Your task to perform on an android device: change timer sound Image 0: 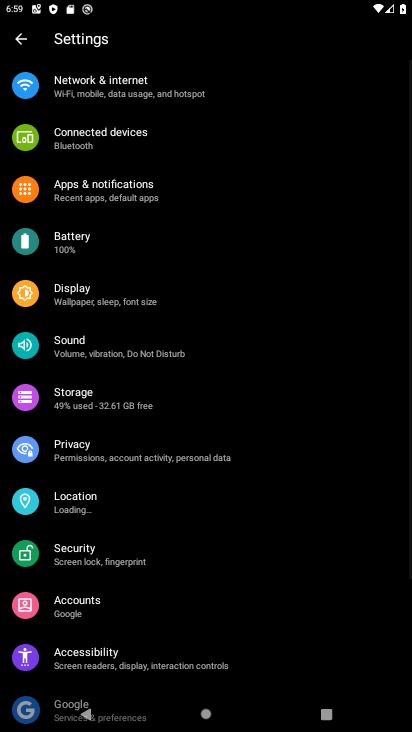
Step 0: press home button
Your task to perform on an android device: change timer sound Image 1: 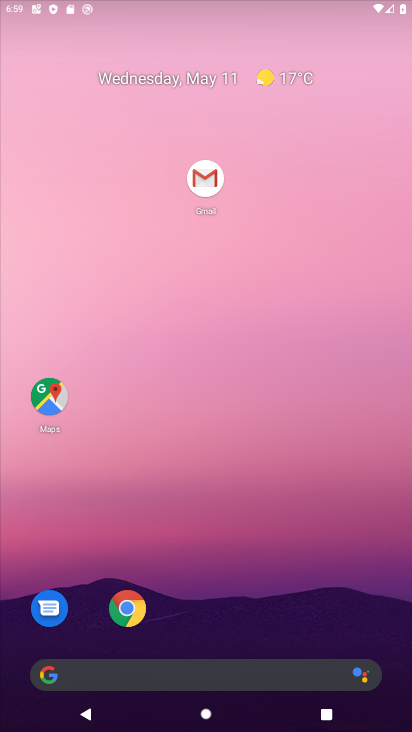
Step 1: drag from (312, 631) to (258, 56)
Your task to perform on an android device: change timer sound Image 2: 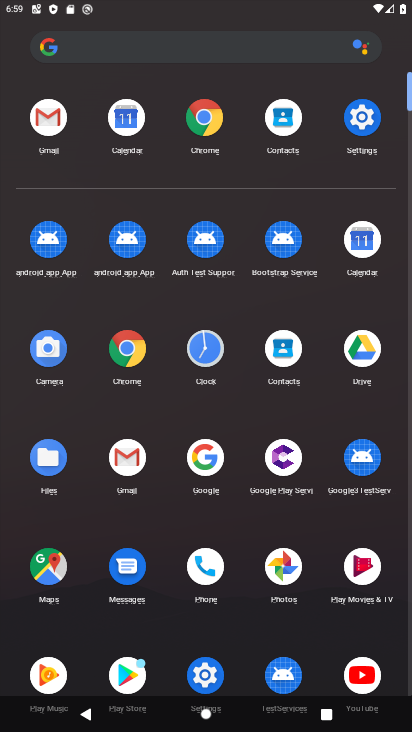
Step 2: drag from (214, 356) to (236, 298)
Your task to perform on an android device: change timer sound Image 3: 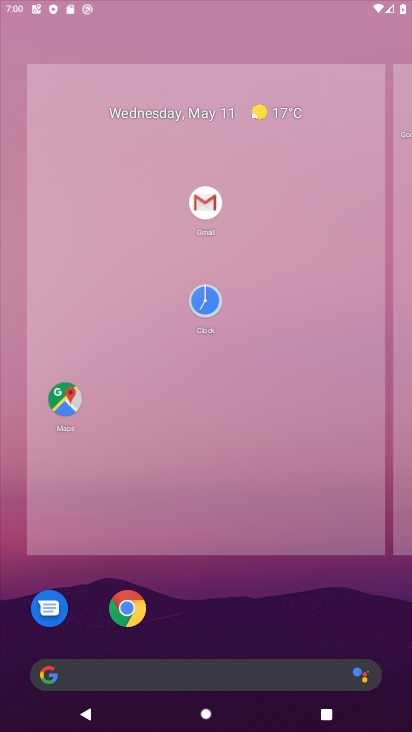
Step 3: click (236, 298)
Your task to perform on an android device: change timer sound Image 4: 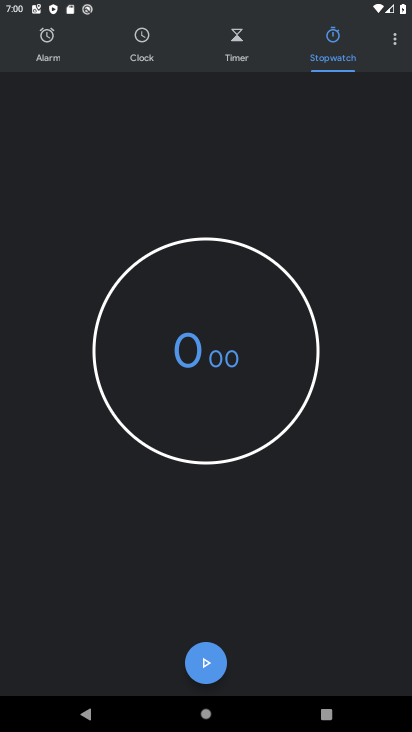
Step 4: click (389, 54)
Your task to perform on an android device: change timer sound Image 5: 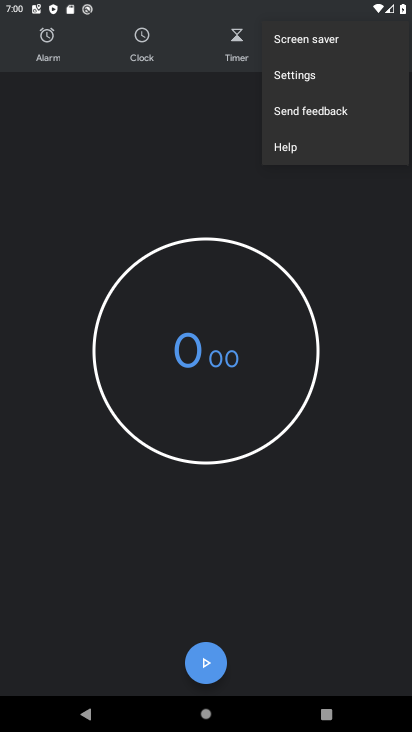
Step 5: click (322, 84)
Your task to perform on an android device: change timer sound Image 6: 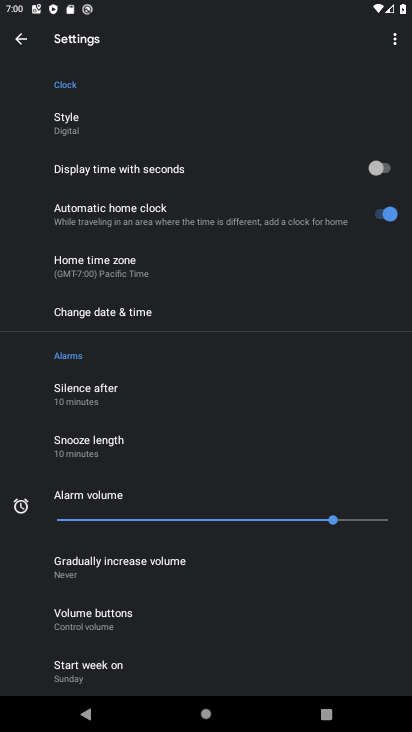
Step 6: drag from (120, 583) to (212, 227)
Your task to perform on an android device: change timer sound Image 7: 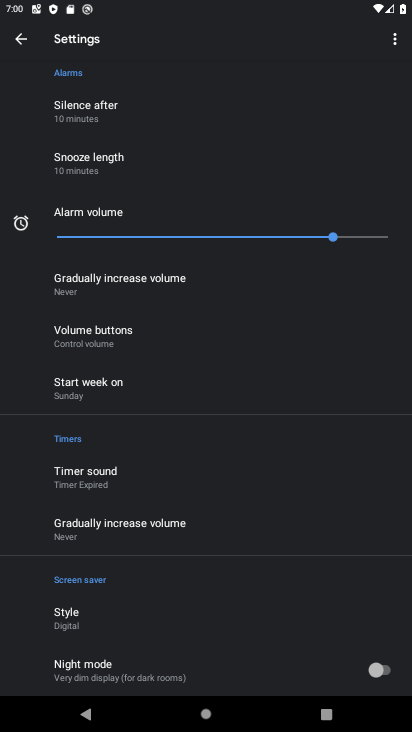
Step 7: click (124, 489)
Your task to perform on an android device: change timer sound Image 8: 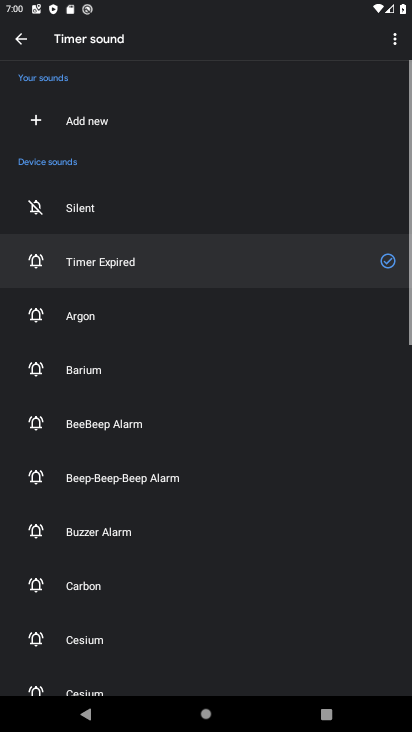
Step 8: click (164, 486)
Your task to perform on an android device: change timer sound Image 9: 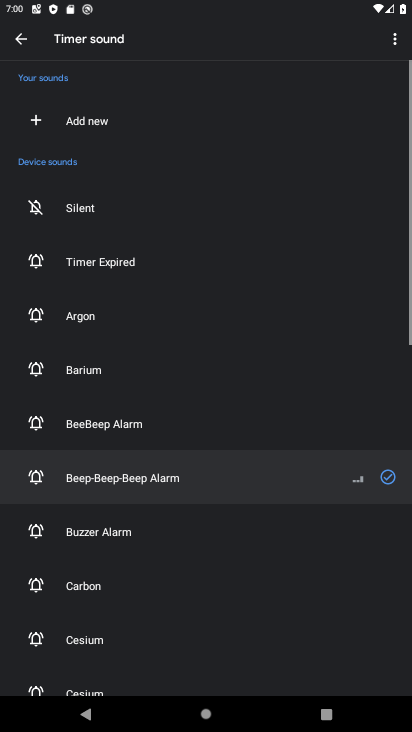
Step 9: task complete